Your task to perform on an android device: choose inbox layout in the gmail app Image 0: 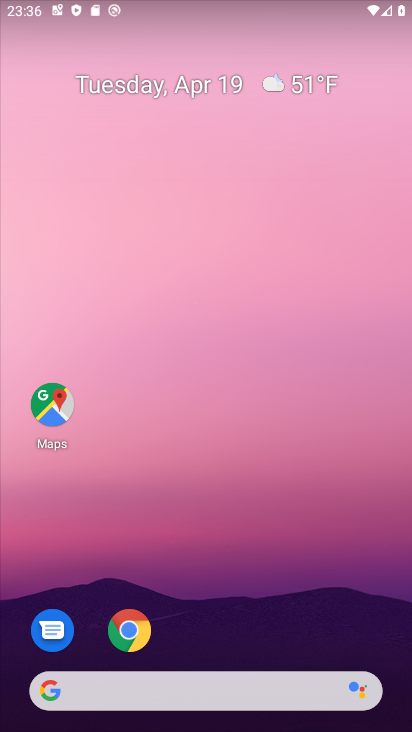
Step 0: drag from (351, 557) to (278, 225)
Your task to perform on an android device: choose inbox layout in the gmail app Image 1: 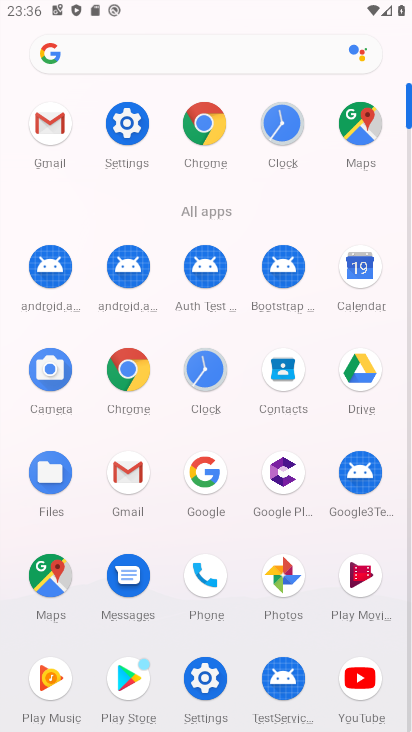
Step 1: click (61, 115)
Your task to perform on an android device: choose inbox layout in the gmail app Image 2: 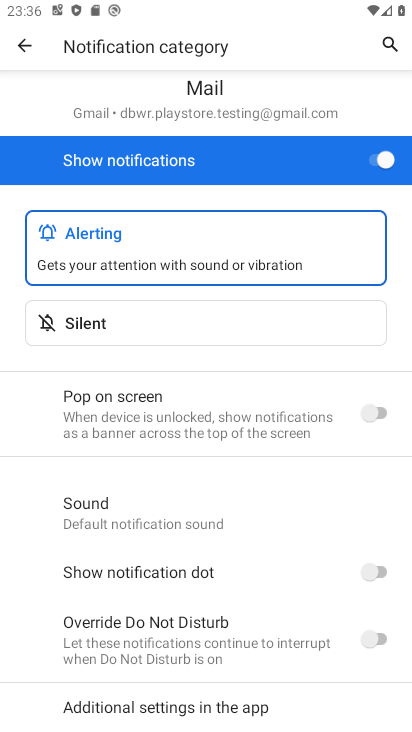
Step 2: click (29, 56)
Your task to perform on an android device: choose inbox layout in the gmail app Image 3: 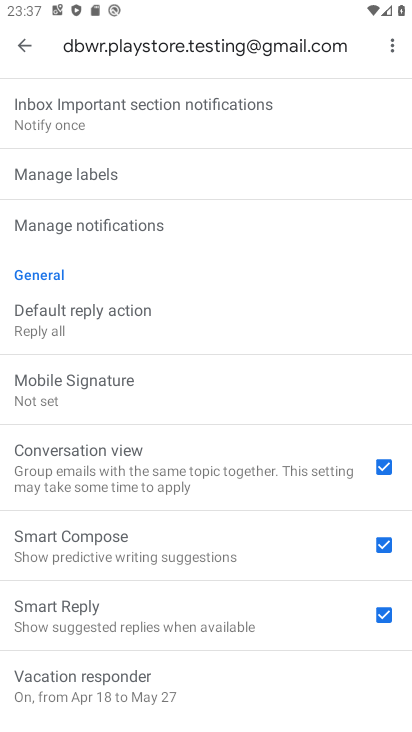
Step 3: drag from (186, 127) to (156, 722)
Your task to perform on an android device: choose inbox layout in the gmail app Image 4: 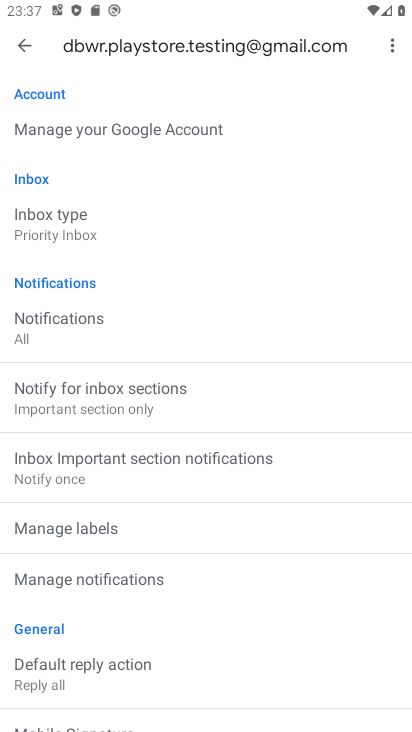
Step 4: click (178, 226)
Your task to perform on an android device: choose inbox layout in the gmail app Image 5: 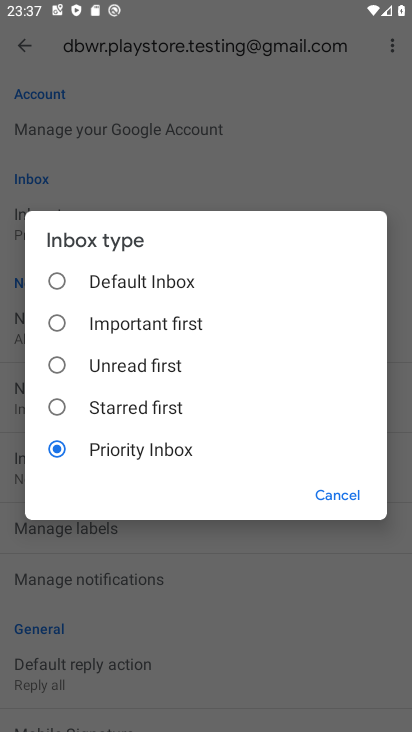
Step 5: click (164, 323)
Your task to perform on an android device: choose inbox layout in the gmail app Image 6: 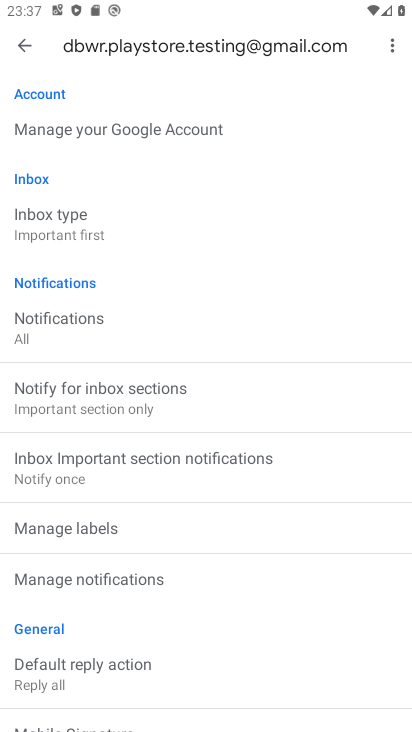
Step 6: task complete